Your task to perform on an android device: set an alarm Image 0: 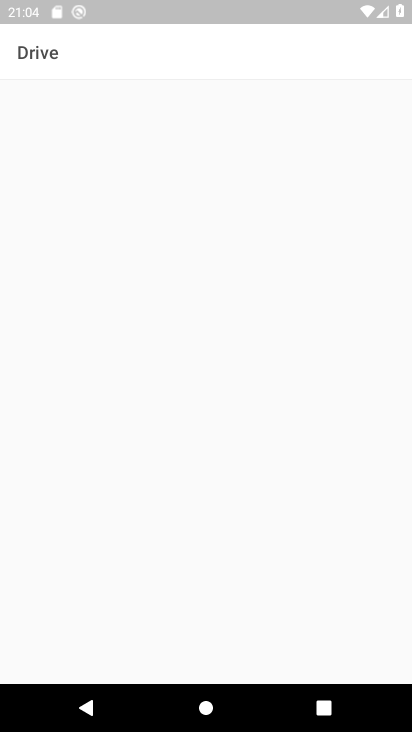
Step 0: press home button
Your task to perform on an android device: set an alarm Image 1: 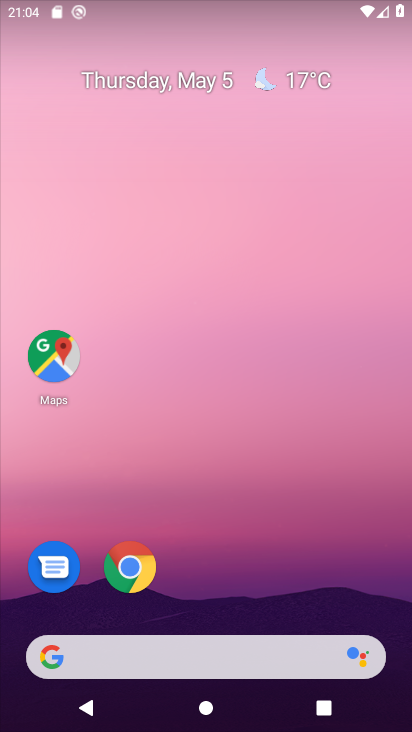
Step 1: drag from (256, 522) to (262, 34)
Your task to perform on an android device: set an alarm Image 2: 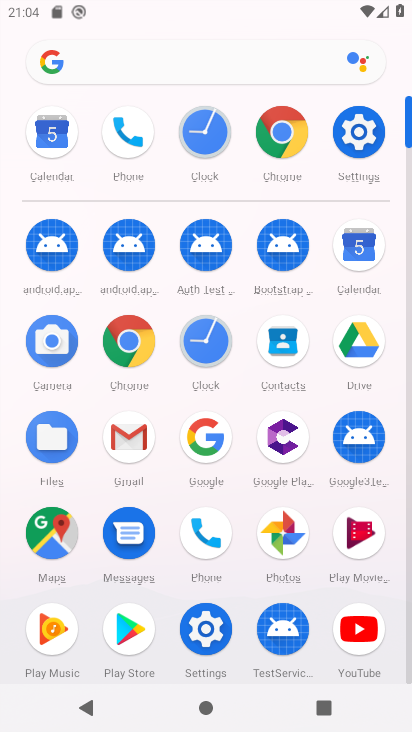
Step 2: click (208, 335)
Your task to perform on an android device: set an alarm Image 3: 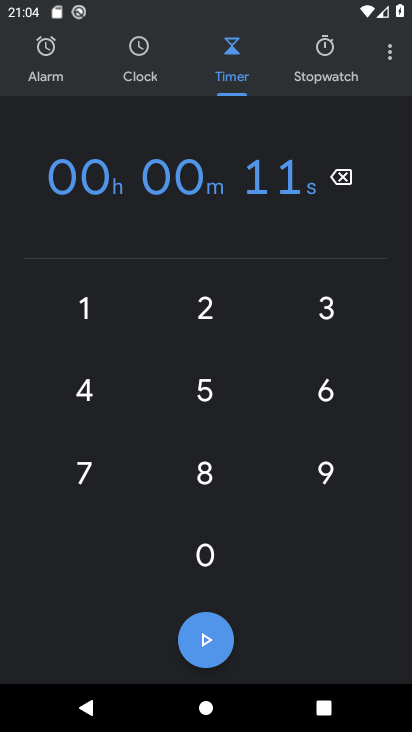
Step 3: click (48, 67)
Your task to perform on an android device: set an alarm Image 4: 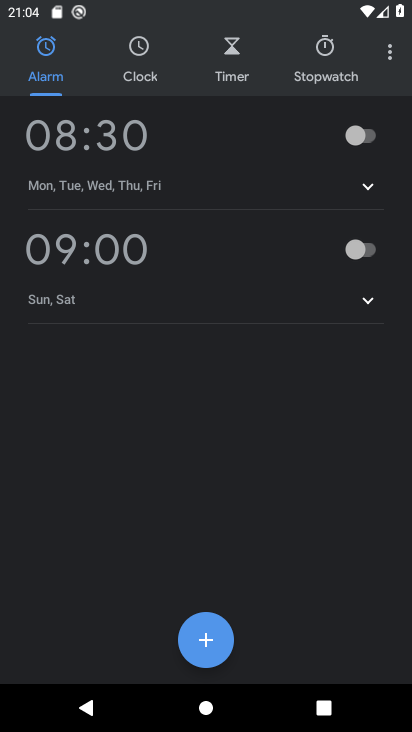
Step 4: click (206, 641)
Your task to perform on an android device: set an alarm Image 5: 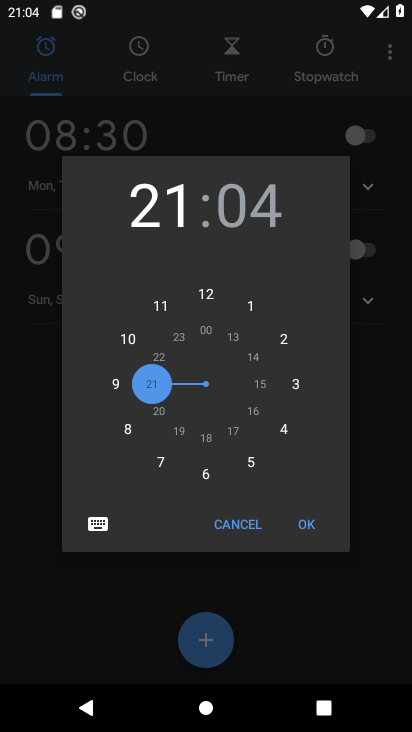
Step 5: click (310, 523)
Your task to perform on an android device: set an alarm Image 6: 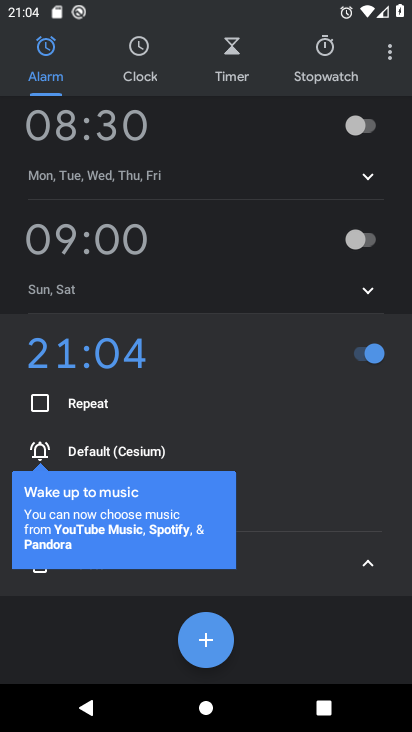
Step 6: task complete